Your task to perform on an android device: Show me recent news Image 0: 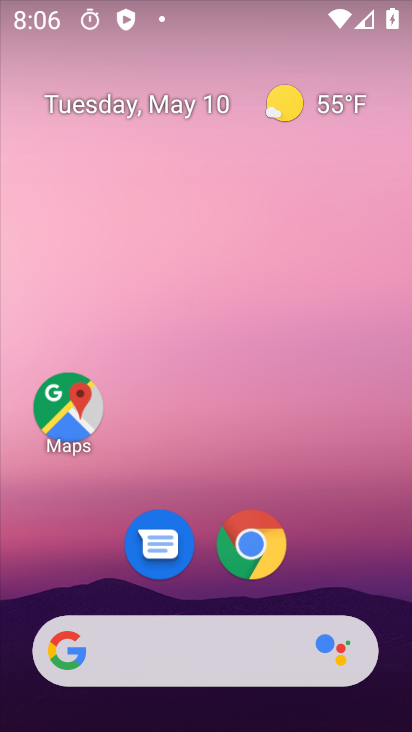
Step 0: drag from (229, 613) to (213, 220)
Your task to perform on an android device: Show me recent news Image 1: 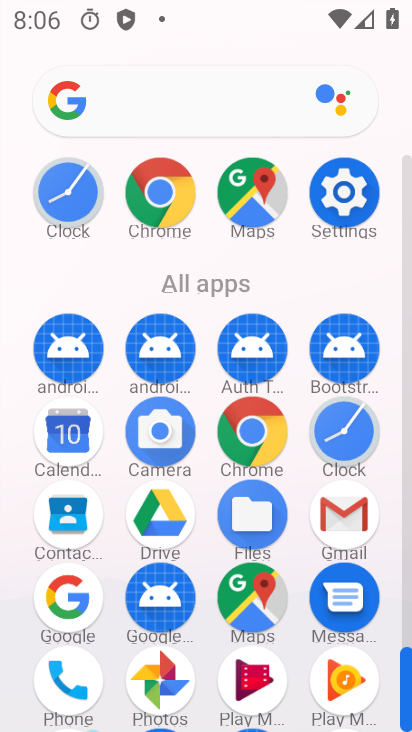
Step 1: click (71, 599)
Your task to perform on an android device: Show me recent news Image 2: 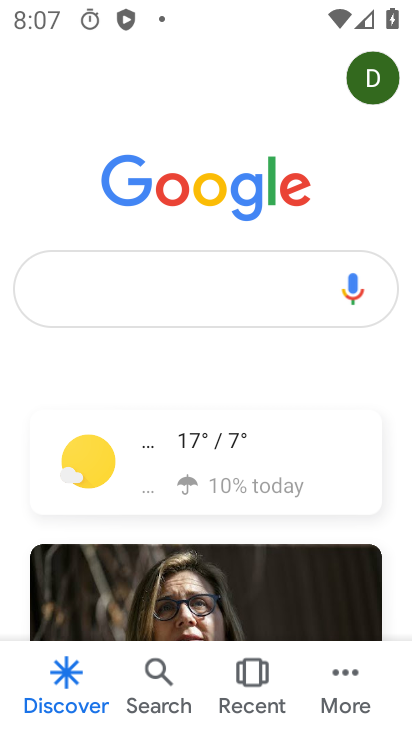
Step 2: click (211, 281)
Your task to perform on an android device: Show me recent news Image 3: 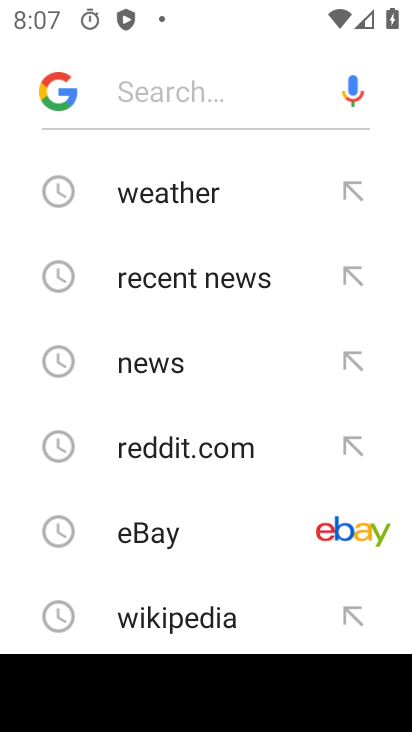
Step 3: click (206, 287)
Your task to perform on an android device: Show me recent news Image 4: 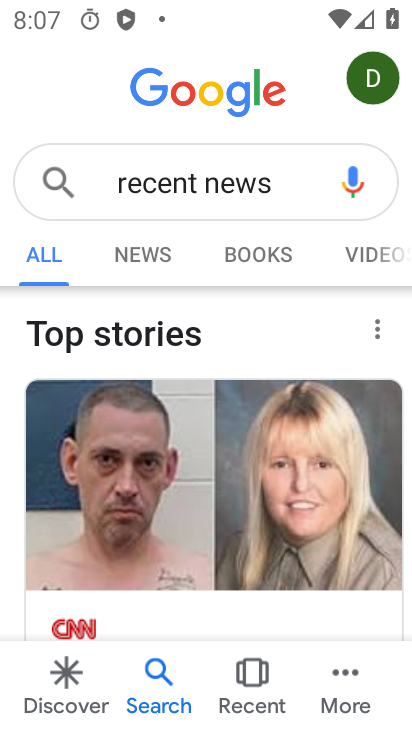
Step 4: task complete